Your task to perform on an android device: Go to Yahoo.com Image 0: 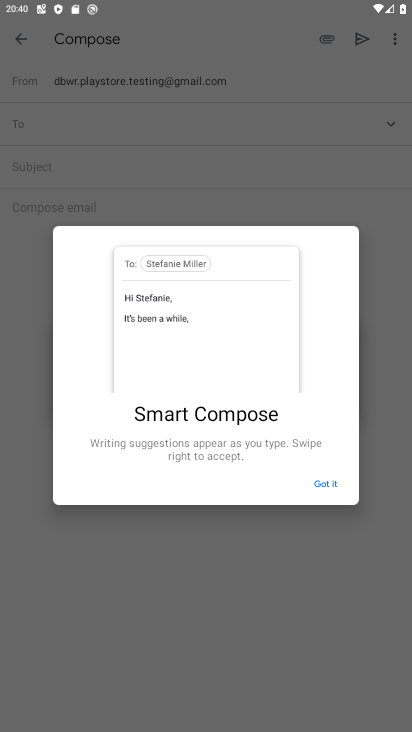
Step 0: press back button
Your task to perform on an android device: Go to Yahoo.com Image 1: 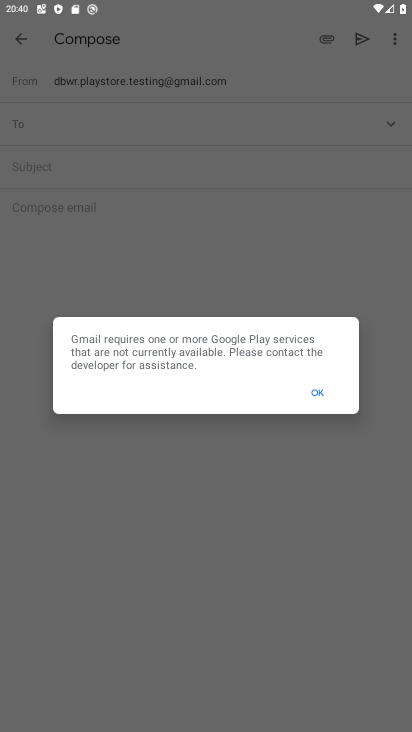
Step 1: press back button
Your task to perform on an android device: Go to Yahoo.com Image 2: 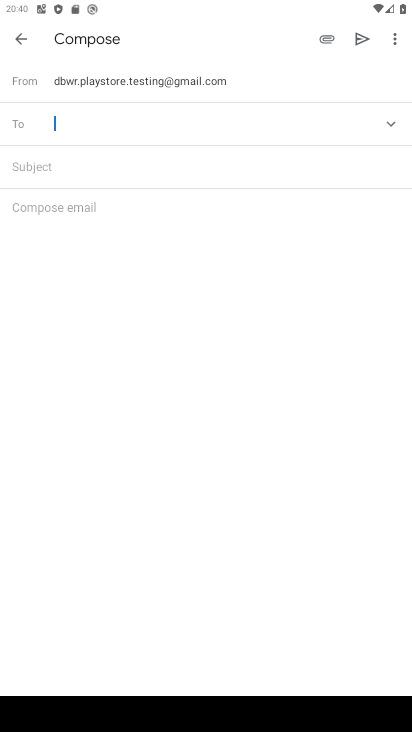
Step 2: press back button
Your task to perform on an android device: Go to Yahoo.com Image 3: 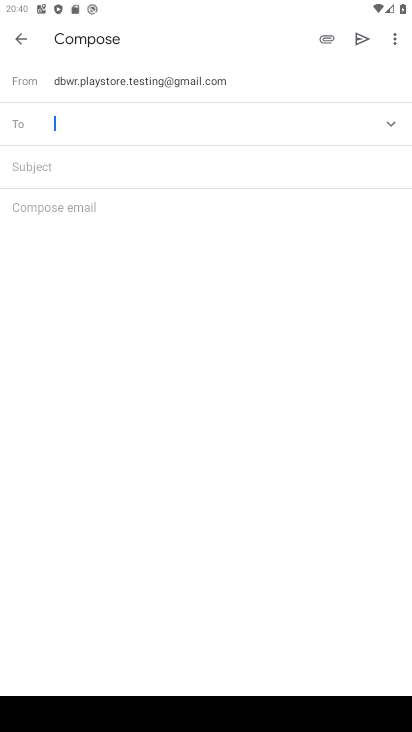
Step 3: press back button
Your task to perform on an android device: Go to Yahoo.com Image 4: 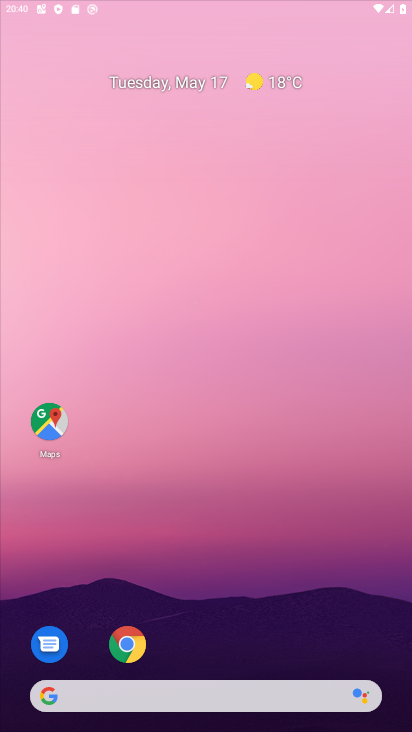
Step 4: press back button
Your task to perform on an android device: Go to Yahoo.com Image 5: 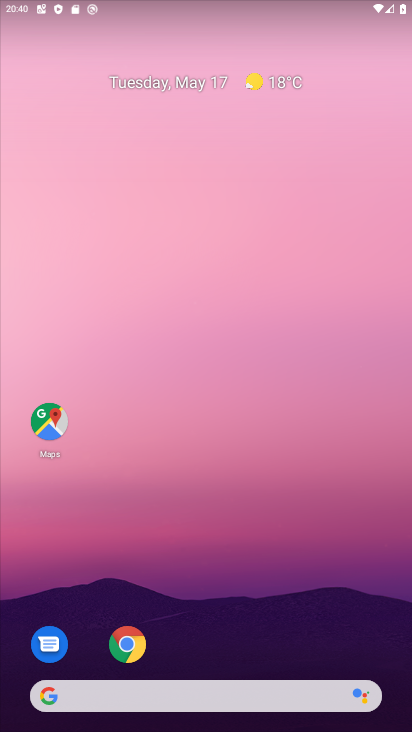
Step 5: click (115, 642)
Your task to perform on an android device: Go to Yahoo.com Image 6: 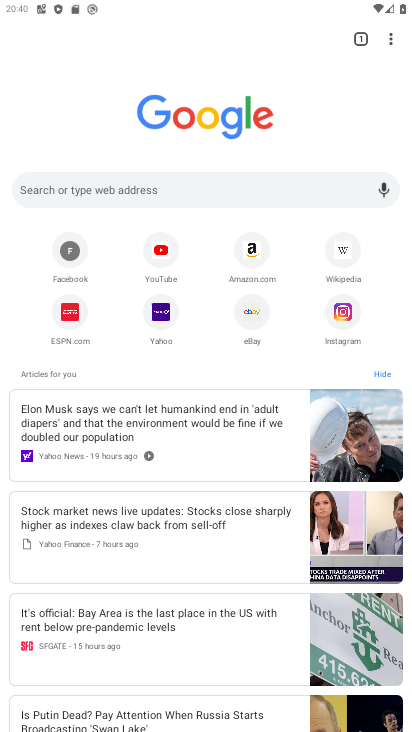
Step 6: click (170, 317)
Your task to perform on an android device: Go to Yahoo.com Image 7: 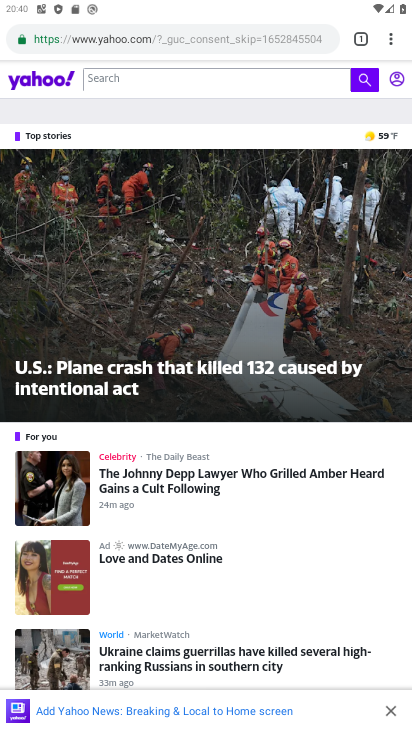
Step 7: task complete